Your task to perform on an android device: Do I have any events today? Image 0: 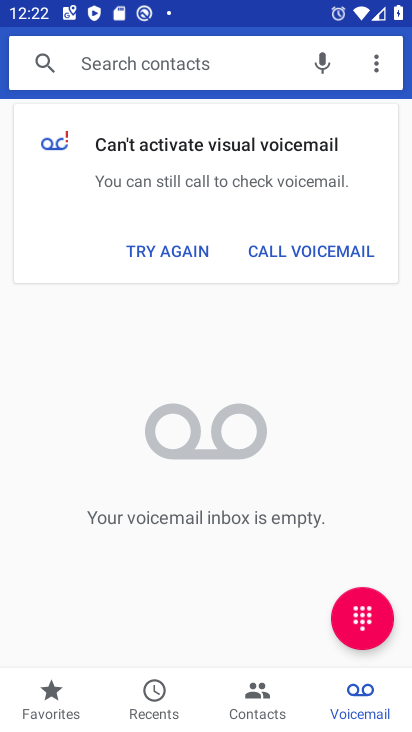
Step 0: press home button
Your task to perform on an android device: Do I have any events today? Image 1: 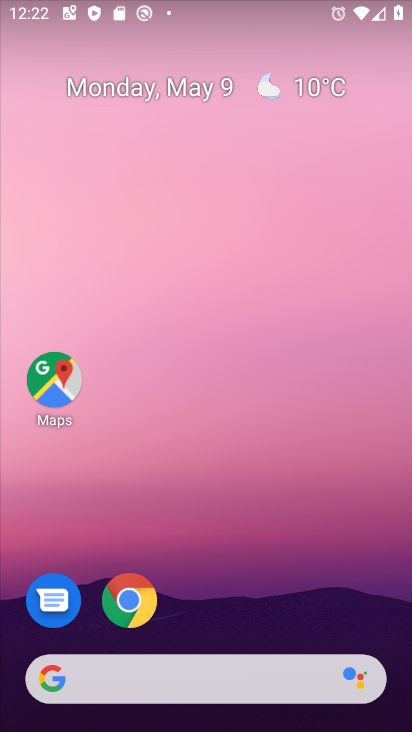
Step 1: drag from (194, 501) to (261, 222)
Your task to perform on an android device: Do I have any events today? Image 2: 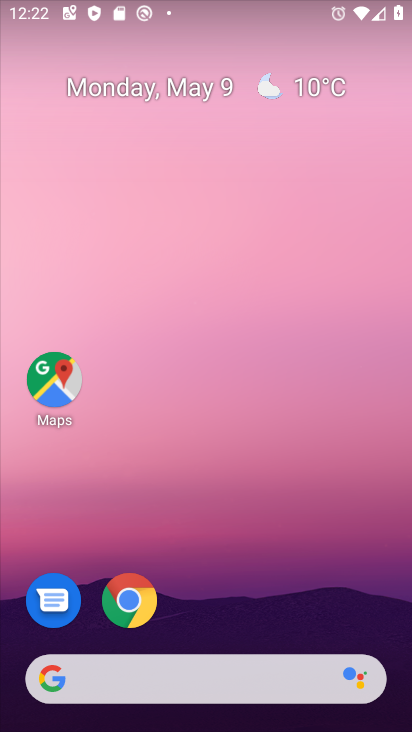
Step 2: drag from (175, 421) to (240, 152)
Your task to perform on an android device: Do I have any events today? Image 3: 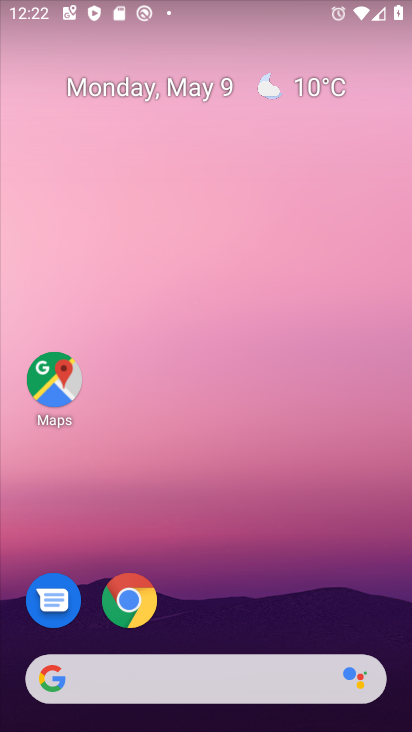
Step 3: drag from (217, 622) to (324, 51)
Your task to perform on an android device: Do I have any events today? Image 4: 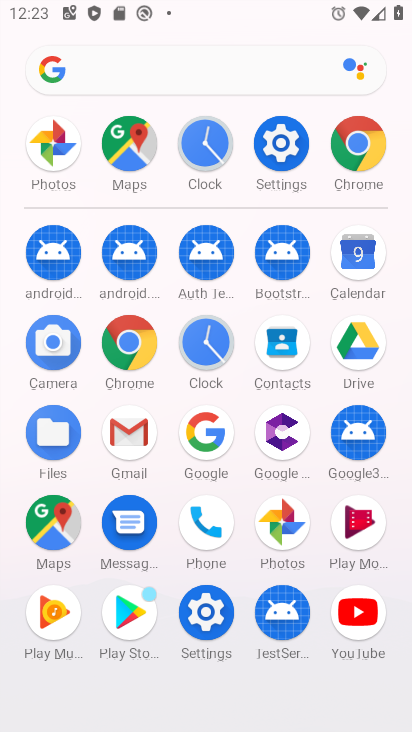
Step 4: click (354, 265)
Your task to perform on an android device: Do I have any events today? Image 5: 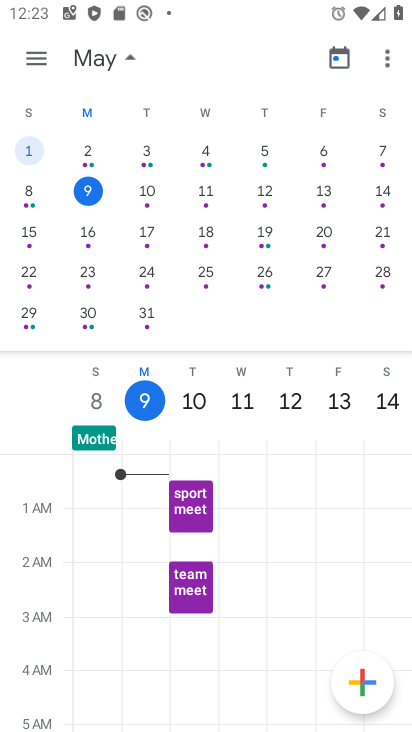
Step 5: task complete